Your task to perform on an android device: Show me productivity apps on the Play Store Image 0: 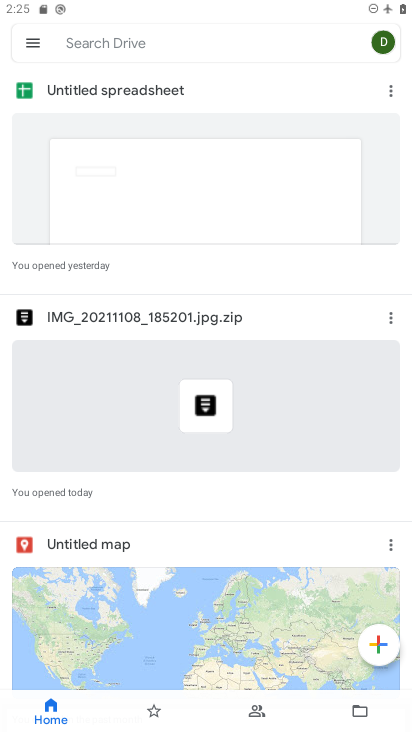
Step 0: drag from (170, 505) to (190, 341)
Your task to perform on an android device: Show me productivity apps on the Play Store Image 1: 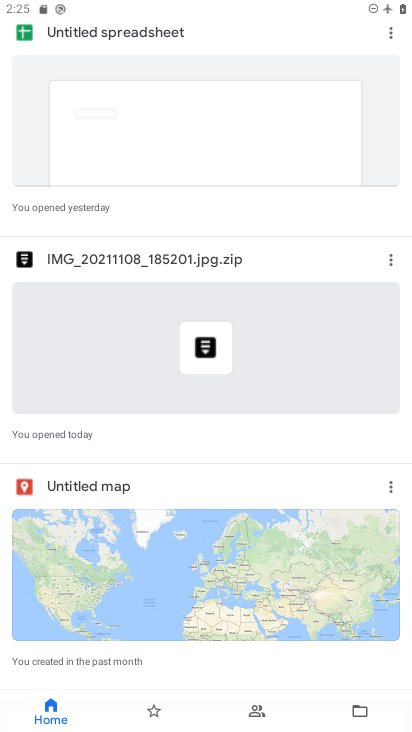
Step 1: drag from (181, 204) to (323, 683)
Your task to perform on an android device: Show me productivity apps on the Play Store Image 2: 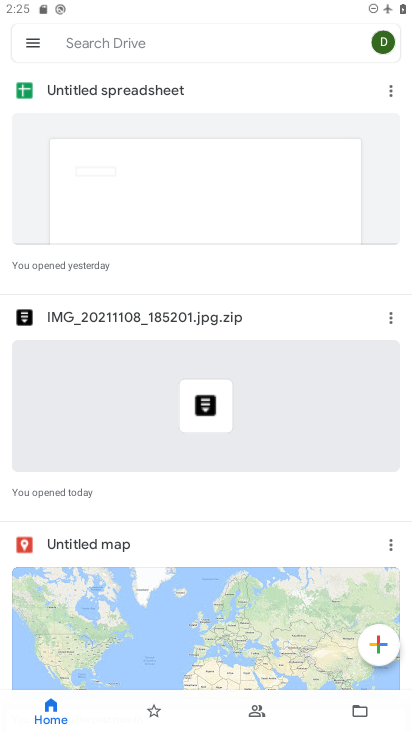
Step 2: click (392, 30)
Your task to perform on an android device: Show me productivity apps on the Play Store Image 3: 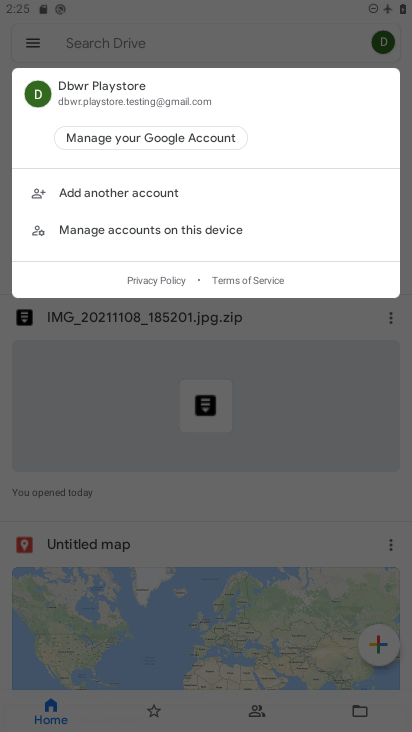
Step 3: press home button
Your task to perform on an android device: Show me productivity apps on the Play Store Image 4: 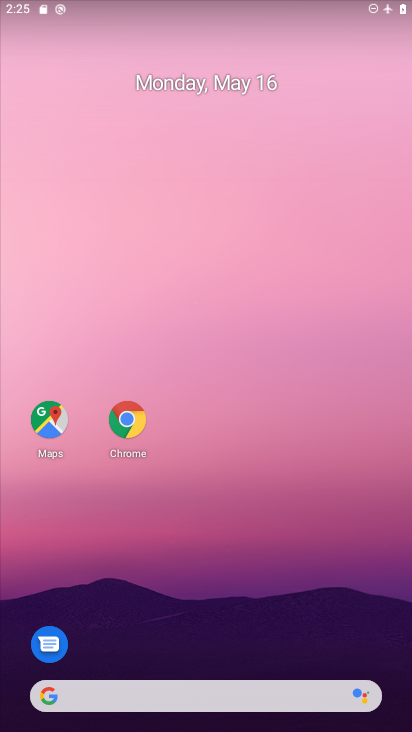
Step 4: drag from (175, 558) to (178, 344)
Your task to perform on an android device: Show me productivity apps on the Play Store Image 5: 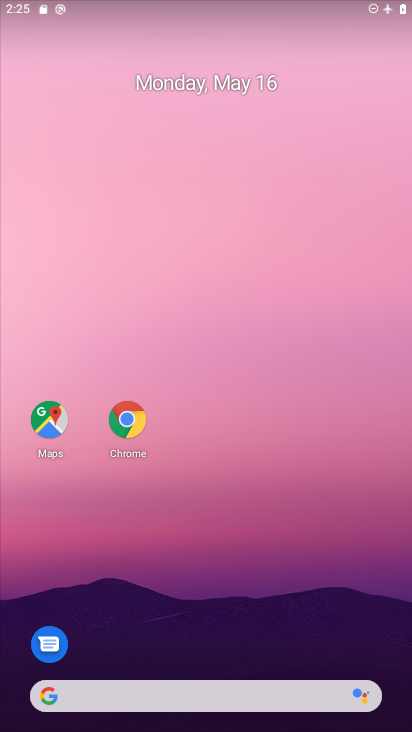
Step 5: drag from (223, 659) to (146, 13)
Your task to perform on an android device: Show me productivity apps on the Play Store Image 6: 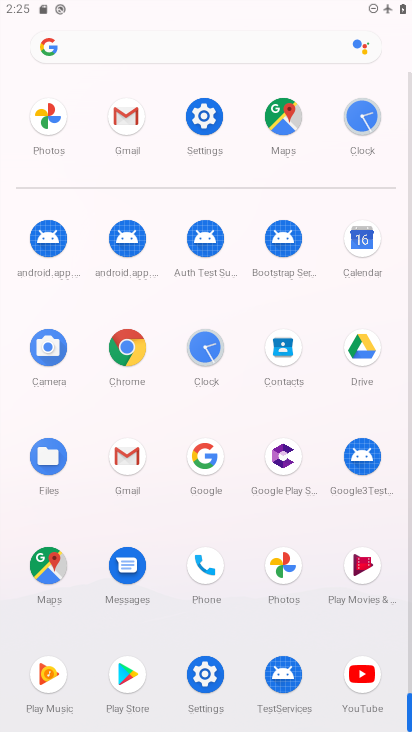
Step 6: click (120, 669)
Your task to perform on an android device: Show me productivity apps on the Play Store Image 7: 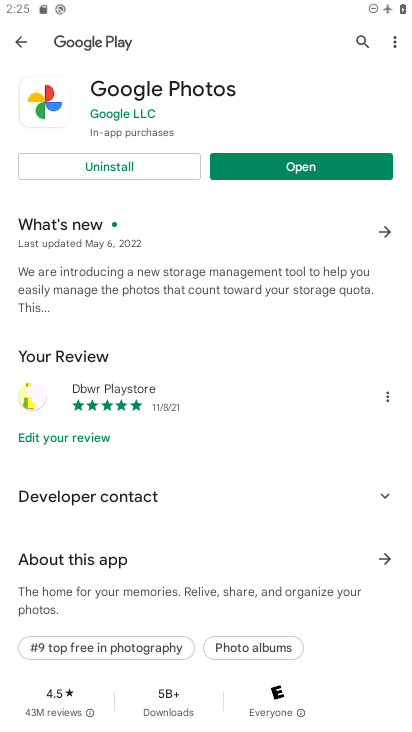
Step 7: drag from (265, 560) to (308, 361)
Your task to perform on an android device: Show me productivity apps on the Play Store Image 8: 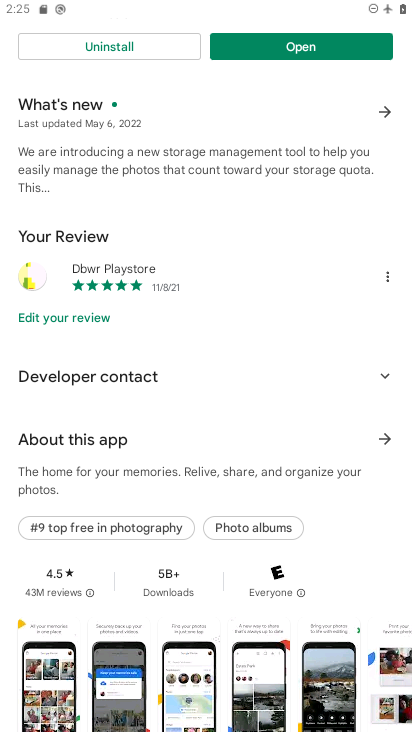
Step 8: drag from (6, 158) to (276, 689)
Your task to perform on an android device: Show me productivity apps on the Play Store Image 9: 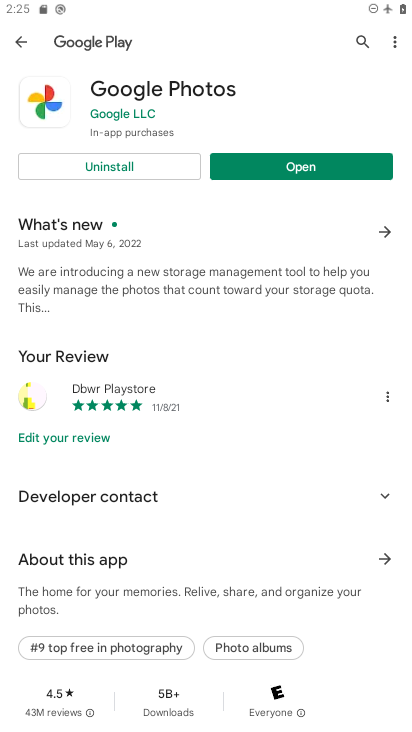
Step 9: click (7, 42)
Your task to perform on an android device: Show me productivity apps on the Play Store Image 10: 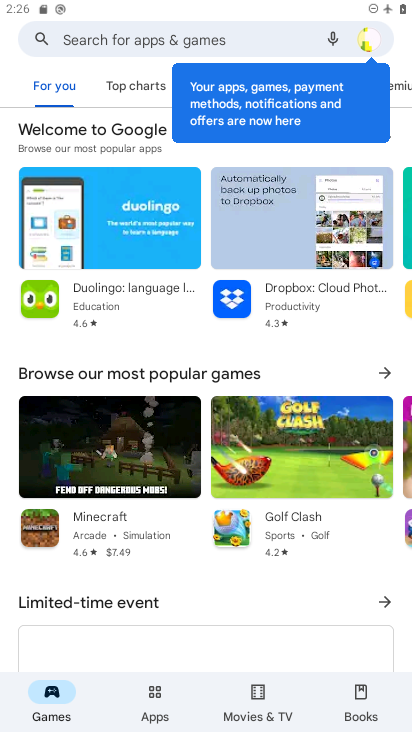
Step 10: task complete